Your task to perform on an android device: Is it going to rain today? Image 0: 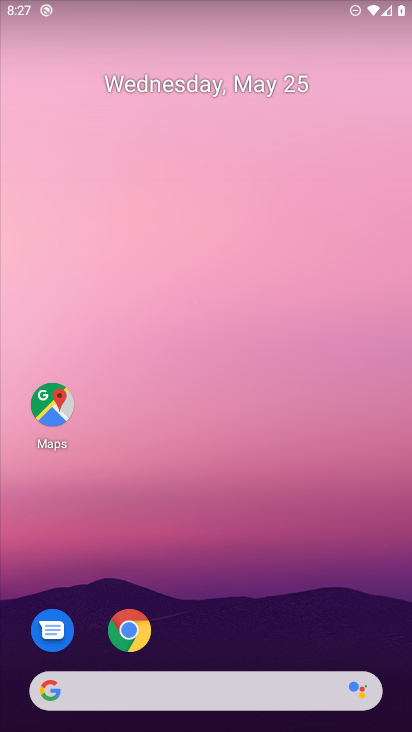
Step 0: drag from (145, 678) to (182, 427)
Your task to perform on an android device: Is it going to rain today? Image 1: 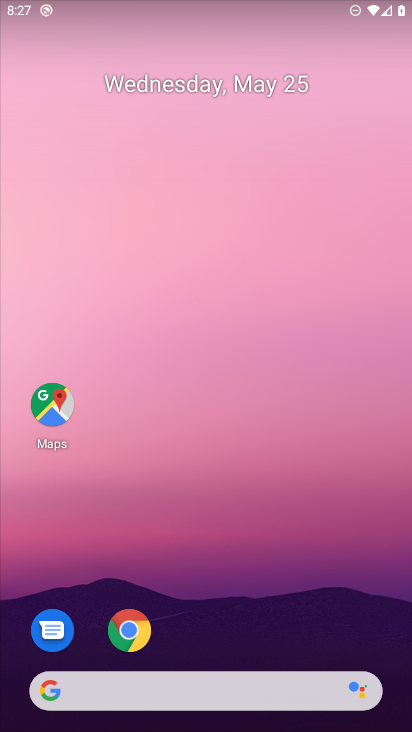
Step 1: drag from (209, 671) to (212, 361)
Your task to perform on an android device: Is it going to rain today? Image 2: 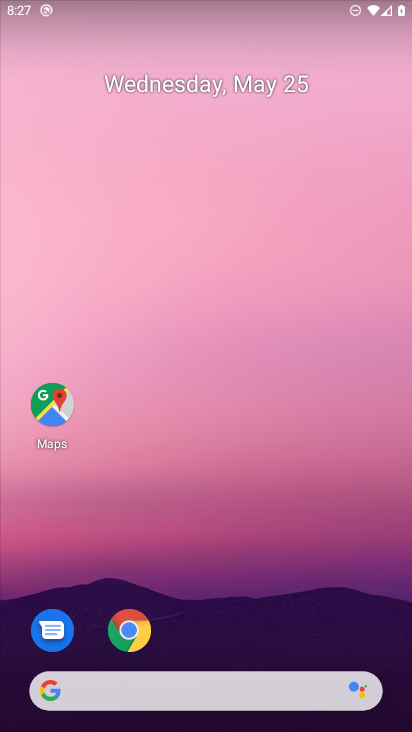
Step 2: drag from (247, 661) to (267, 118)
Your task to perform on an android device: Is it going to rain today? Image 3: 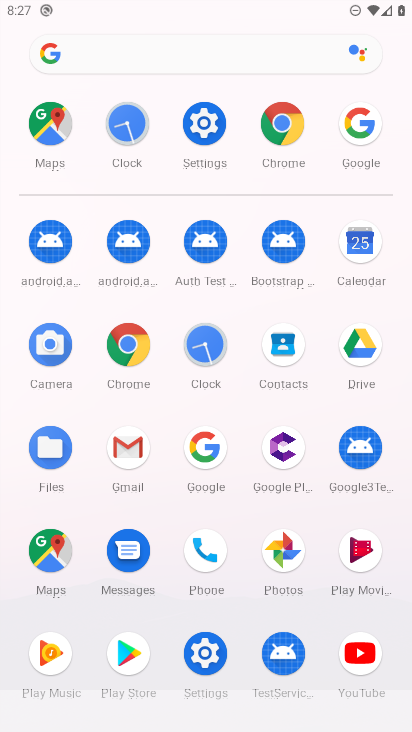
Step 3: click (198, 448)
Your task to perform on an android device: Is it going to rain today? Image 4: 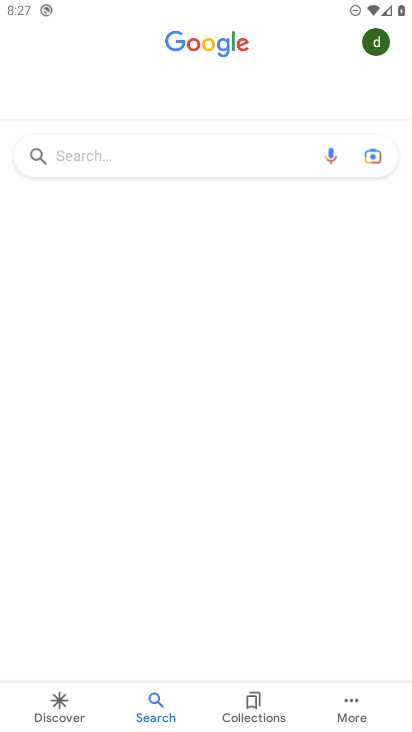
Step 4: click (198, 158)
Your task to perform on an android device: Is it going to rain today? Image 5: 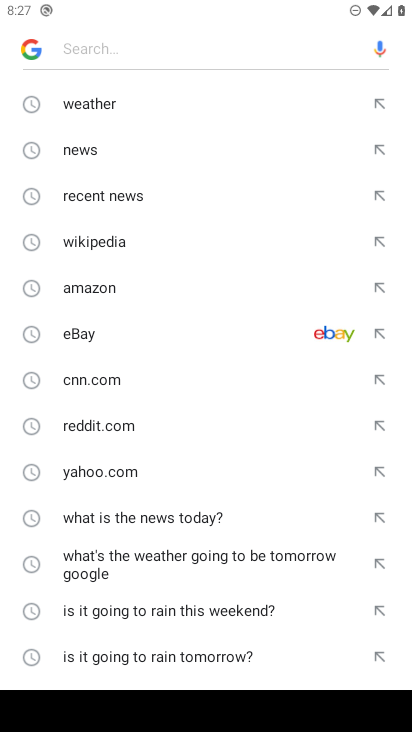
Step 5: drag from (167, 657) to (190, 335)
Your task to perform on an android device: Is it going to rain today? Image 6: 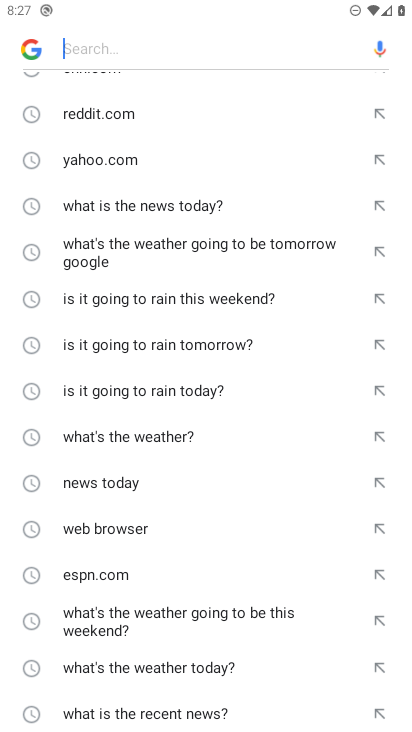
Step 6: click (172, 392)
Your task to perform on an android device: Is it going to rain today? Image 7: 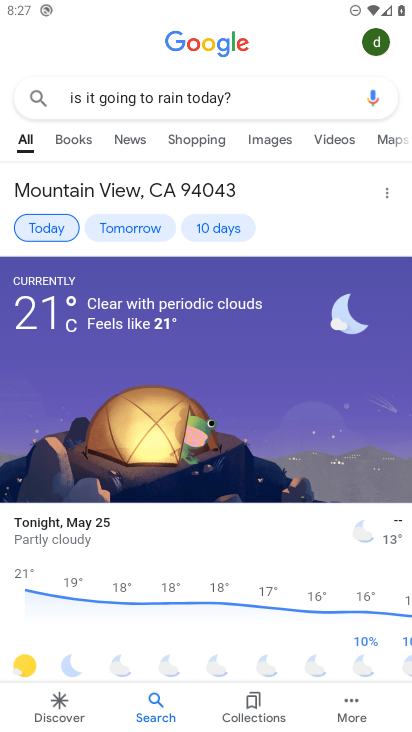
Step 7: task complete